Your task to perform on an android device: empty trash in the gmail app Image 0: 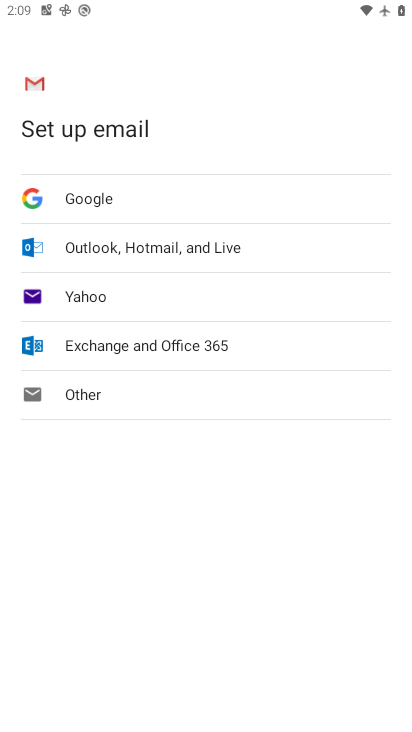
Step 0: press home button
Your task to perform on an android device: empty trash in the gmail app Image 1: 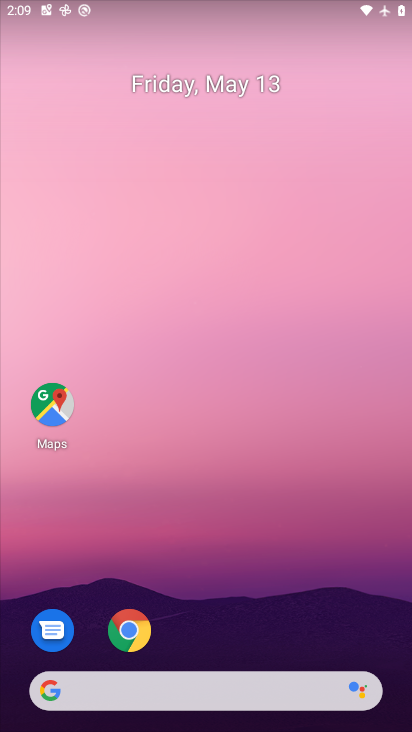
Step 1: drag from (211, 612) to (259, 151)
Your task to perform on an android device: empty trash in the gmail app Image 2: 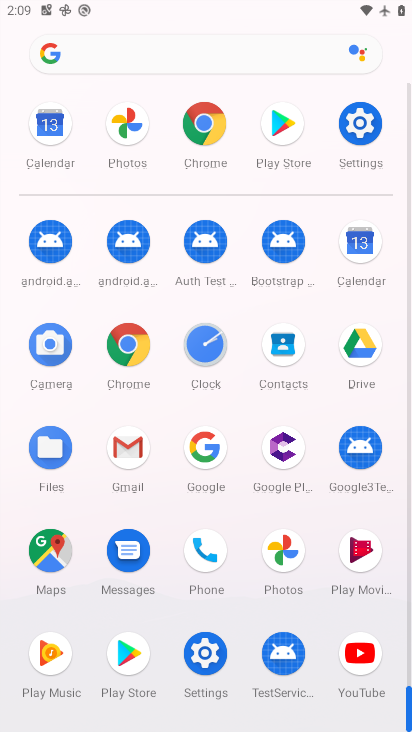
Step 2: click (124, 456)
Your task to perform on an android device: empty trash in the gmail app Image 3: 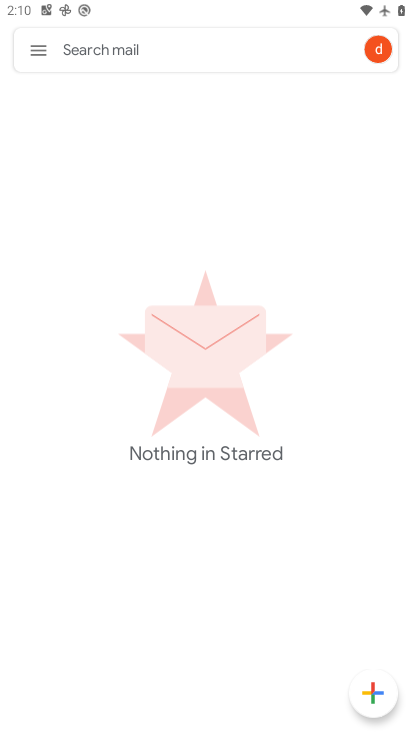
Step 3: click (44, 59)
Your task to perform on an android device: empty trash in the gmail app Image 4: 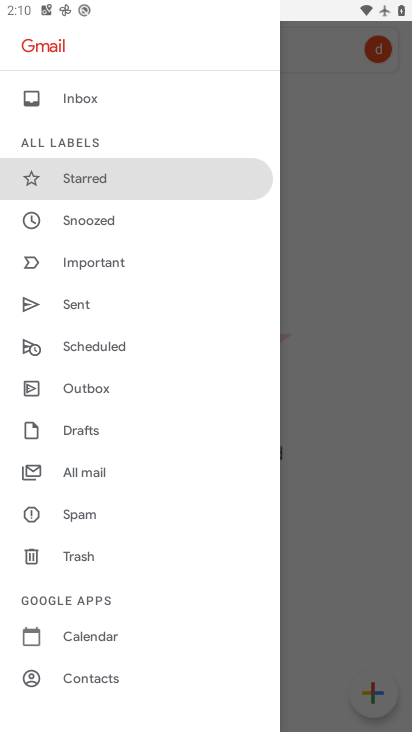
Step 4: click (98, 555)
Your task to perform on an android device: empty trash in the gmail app Image 5: 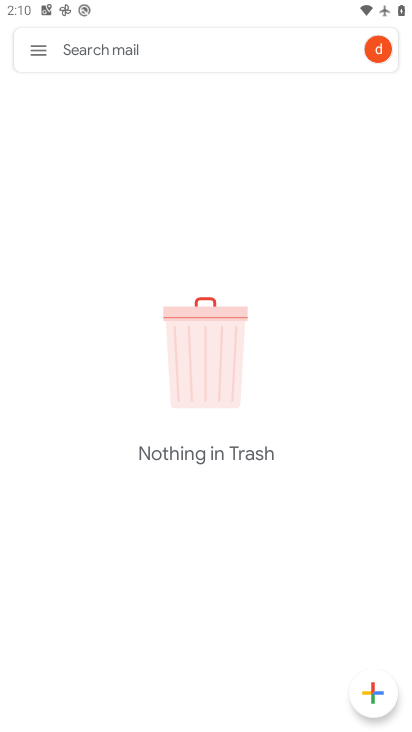
Step 5: task complete